Your task to perform on an android device: turn off translation in the chrome app Image 0: 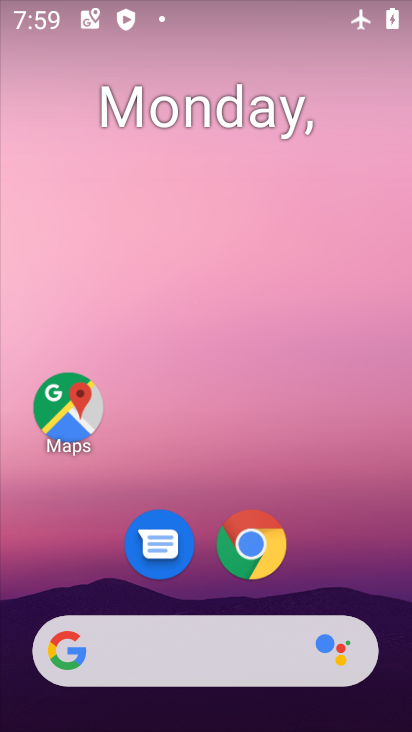
Step 0: click (339, 543)
Your task to perform on an android device: turn off translation in the chrome app Image 1: 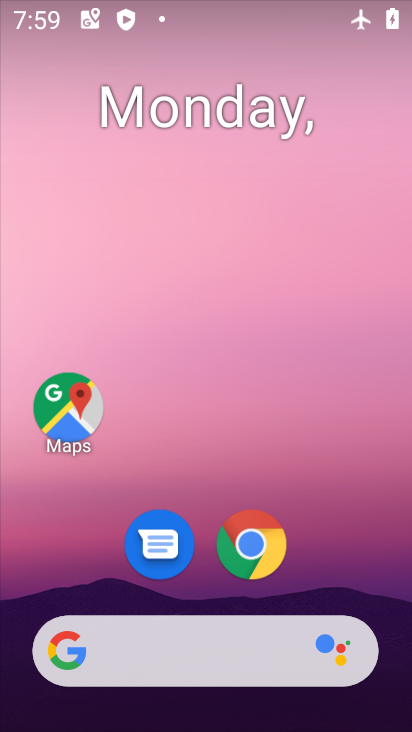
Step 1: click (261, 543)
Your task to perform on an android device: turn off translation in the chrome app Image 2: 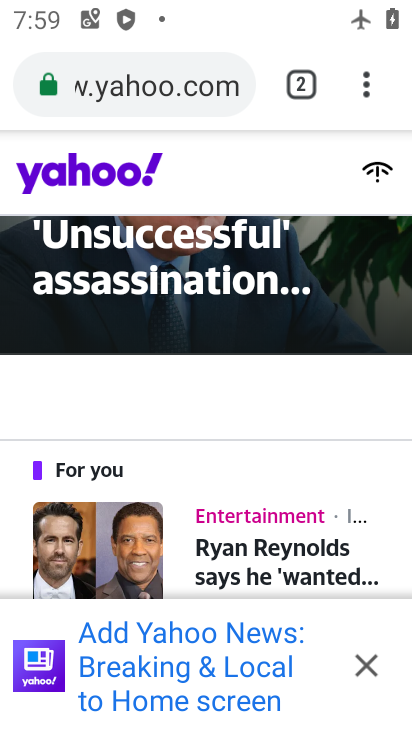
Step 2: click (369, 74)
Your task to perform on an android device: turn off translation in the chrome app Image 3: 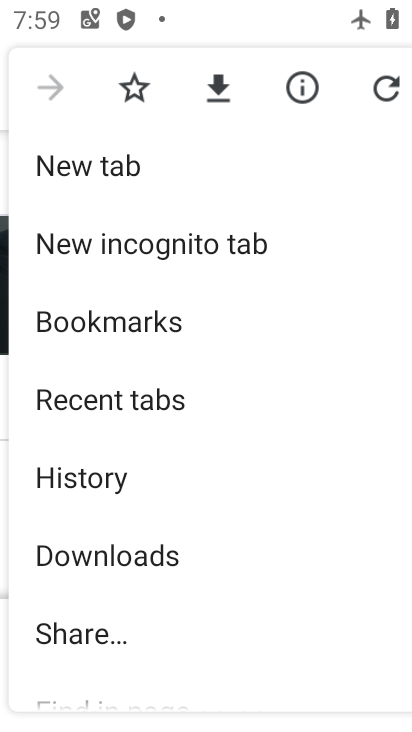
Step 3: drag from (268, 567) to (213, 2)
Your task to perform on an android device: turn off translation in the chrome app Image 4: 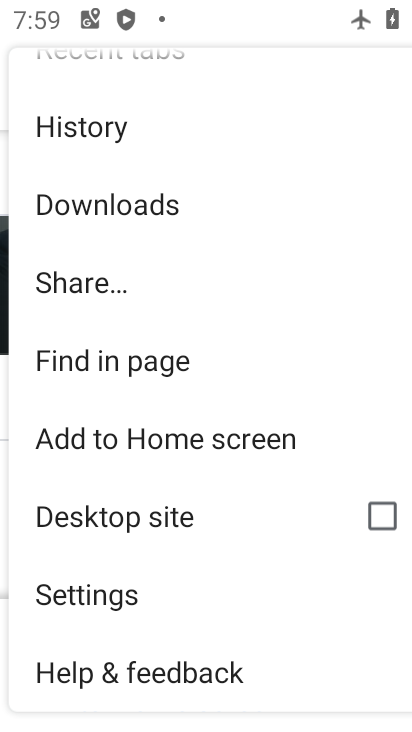
Step 4: click (98, 587)
Your task to perform on an android device: turn off translation in the chrome app Image 5: 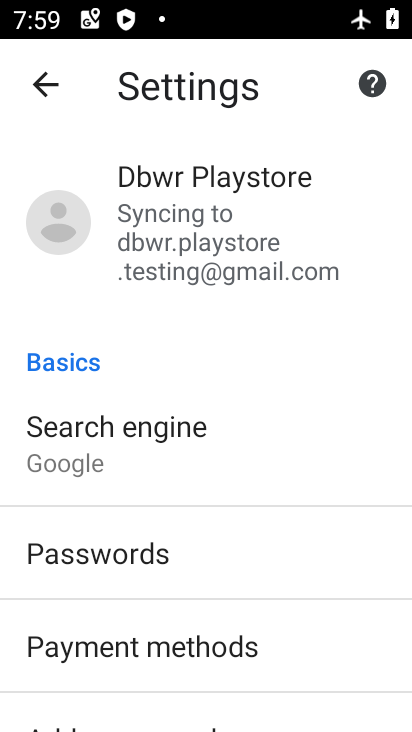
Step 5: drag from (247, 571) to (180, 140)
Your task to perform on an android device: turn off translation in the chrome app Image 6: 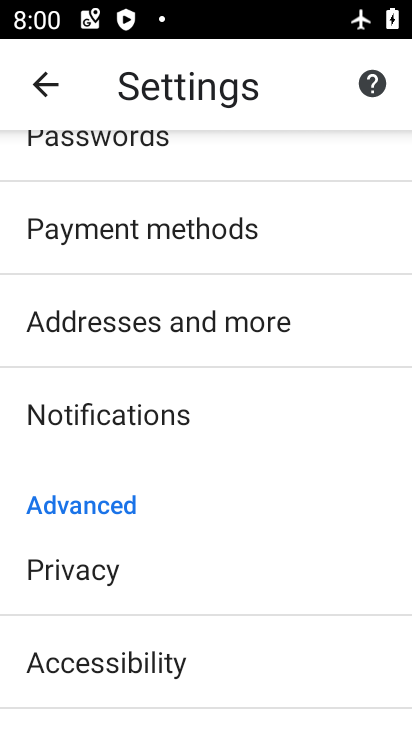
Step 6: drag from (231, 521) to (203, 222)
Your task to perform on an android device: turn off translation in the chrome app Image 7: 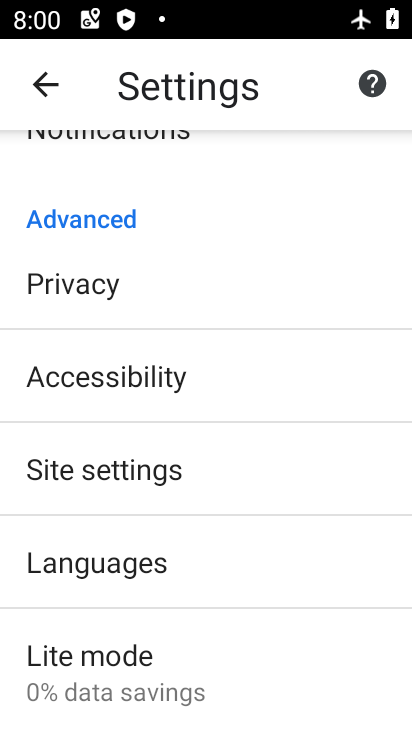
Step 7: click (111, 554)
Your task to perform on an android device: turn off translation in the chrome app Image 8: 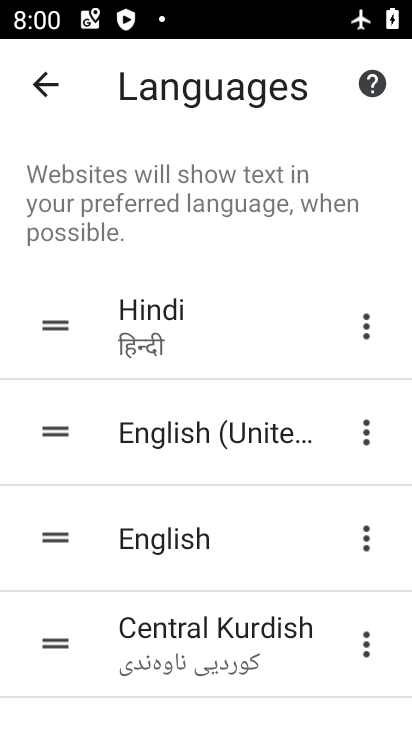
Step 8: drag from (208, 562) to (152, 219)
Your task to perform on an android device: turn off translation in the chrome app Image 9: 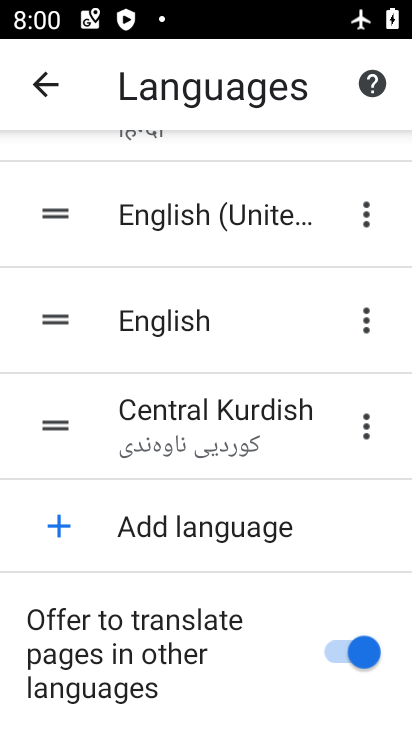
Step 9: click (348, 655)
Your task to perform on an android device: turn off translation in the chrome app Image 10: 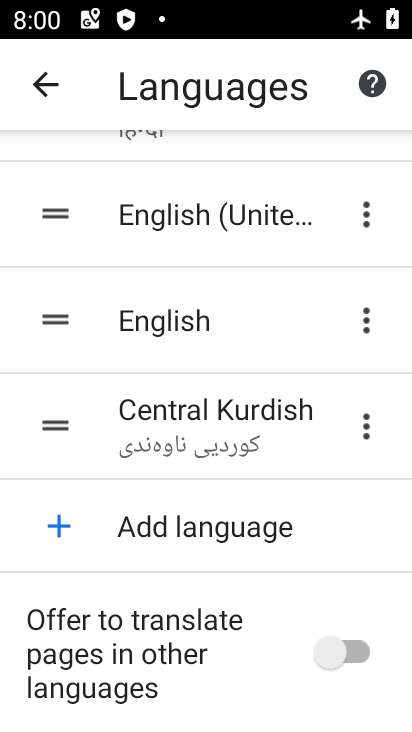
Step 10: task complete